Your task to perform on an android device: Show me recent news Image 0: 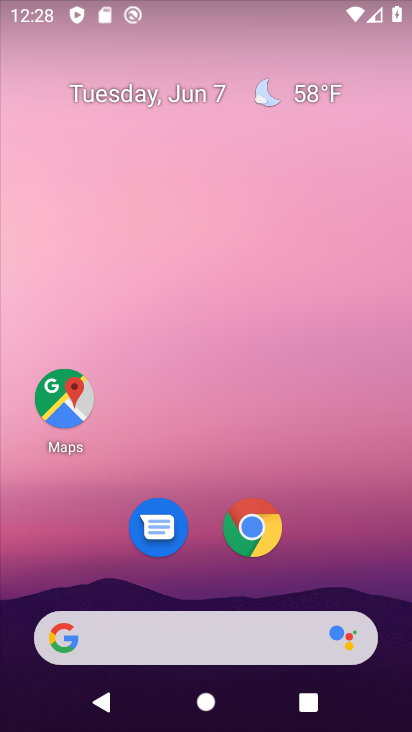
Step 0: drag from (5, 290) to (411, 261)
Your task to perform on an android device: Show me recent news Image 1: 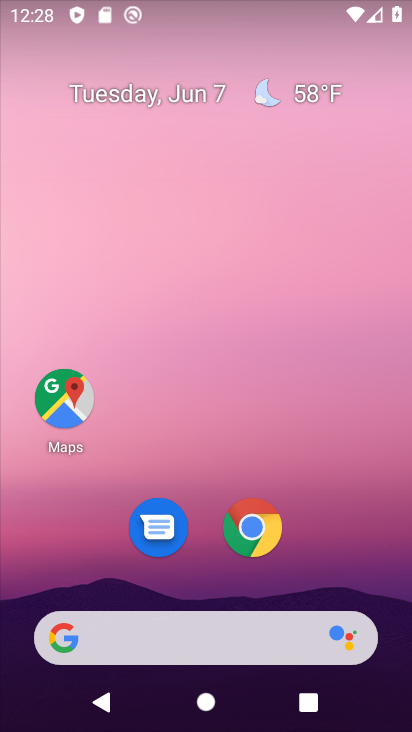
Step 1: click (9, 269)
Your task to perform on an android device: Show me recent news Image 2: 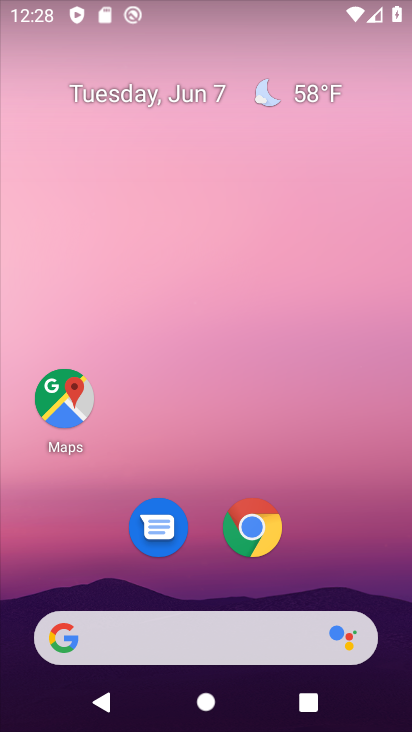
Step 2: task complete